Your task to perform on an android device: Empty the shopping cart on amazon.com. Add dell xps to the cart on amazon.com Image 0: 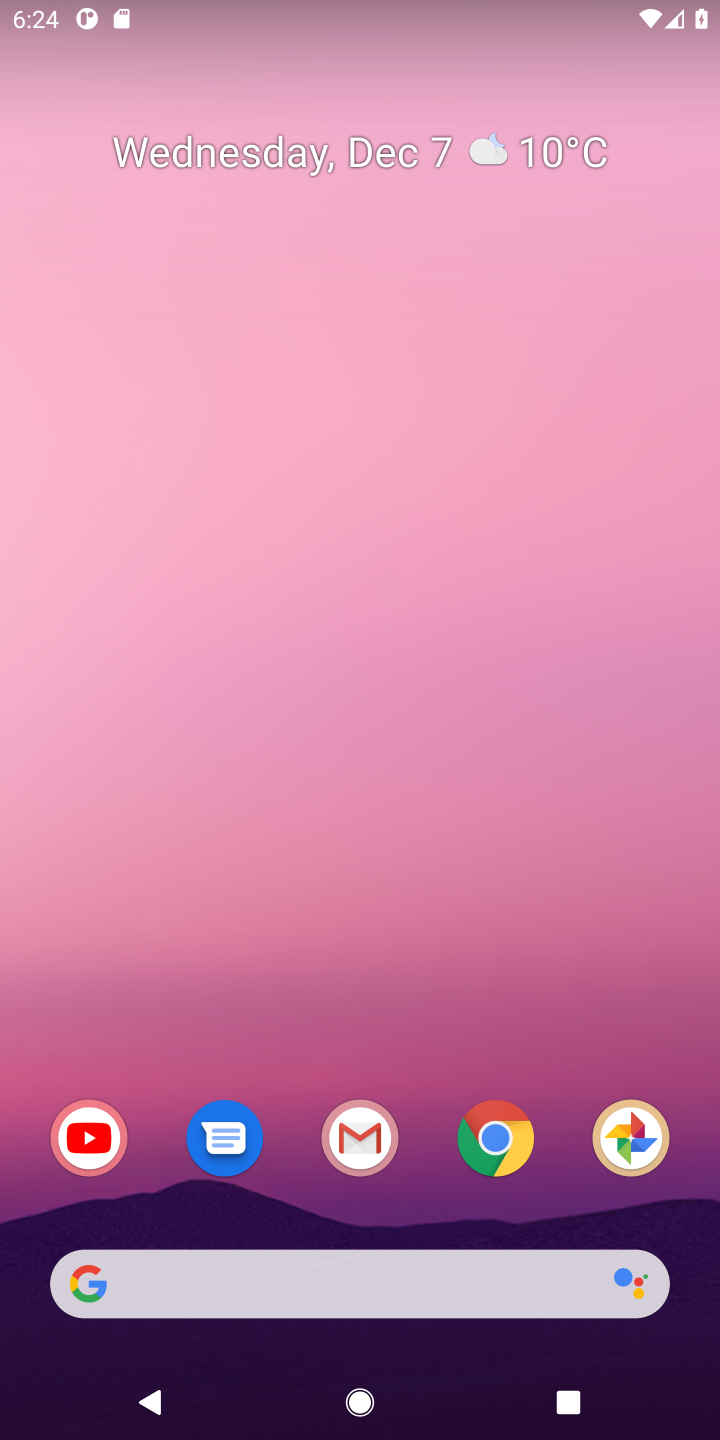
Step 0: press home button
Your task to perform on an android device: Empty the shopping cart on amazon.com. Add dell xps to the cart on amazon.com Image 1: 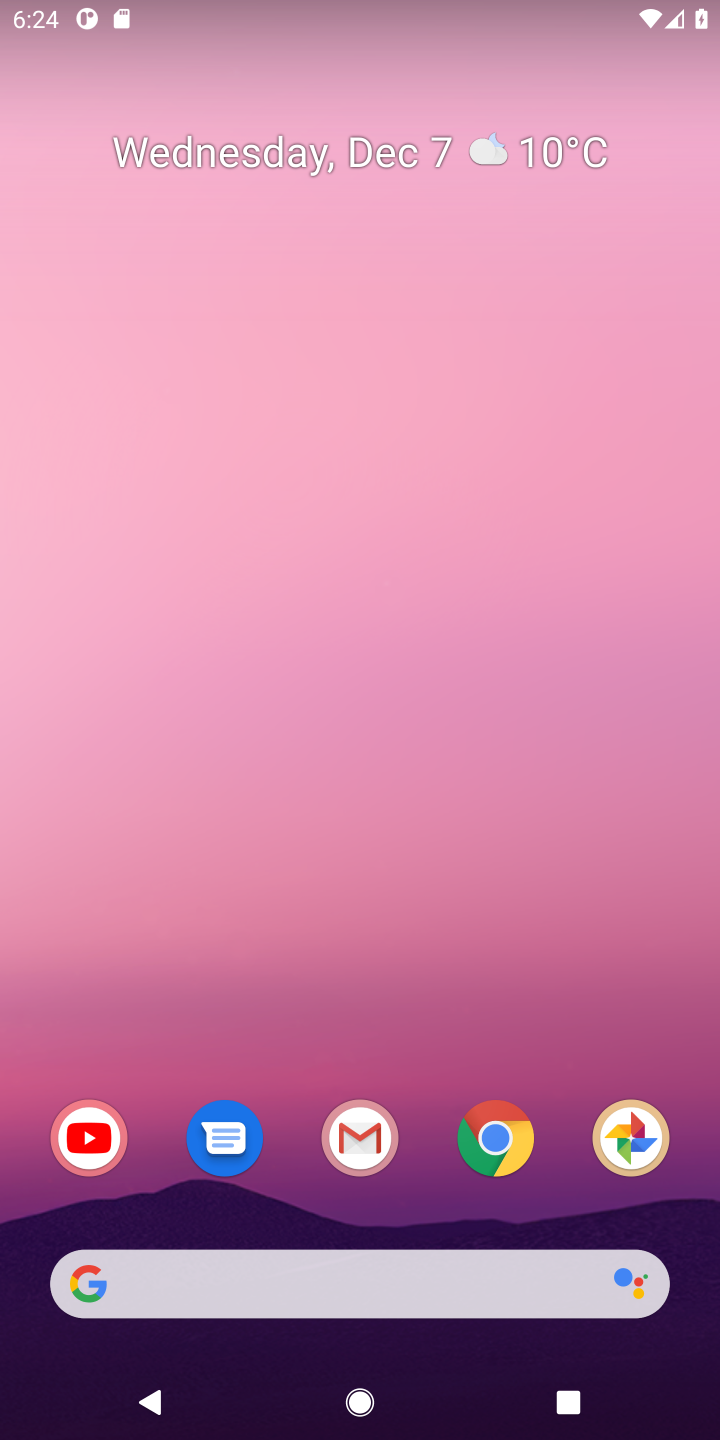
Step 1: click (139, 1292)
Your task to perform on an android device: Empty the shopping cart on amazon.com. Add dell xps to the cart on amazon.com Image 2: 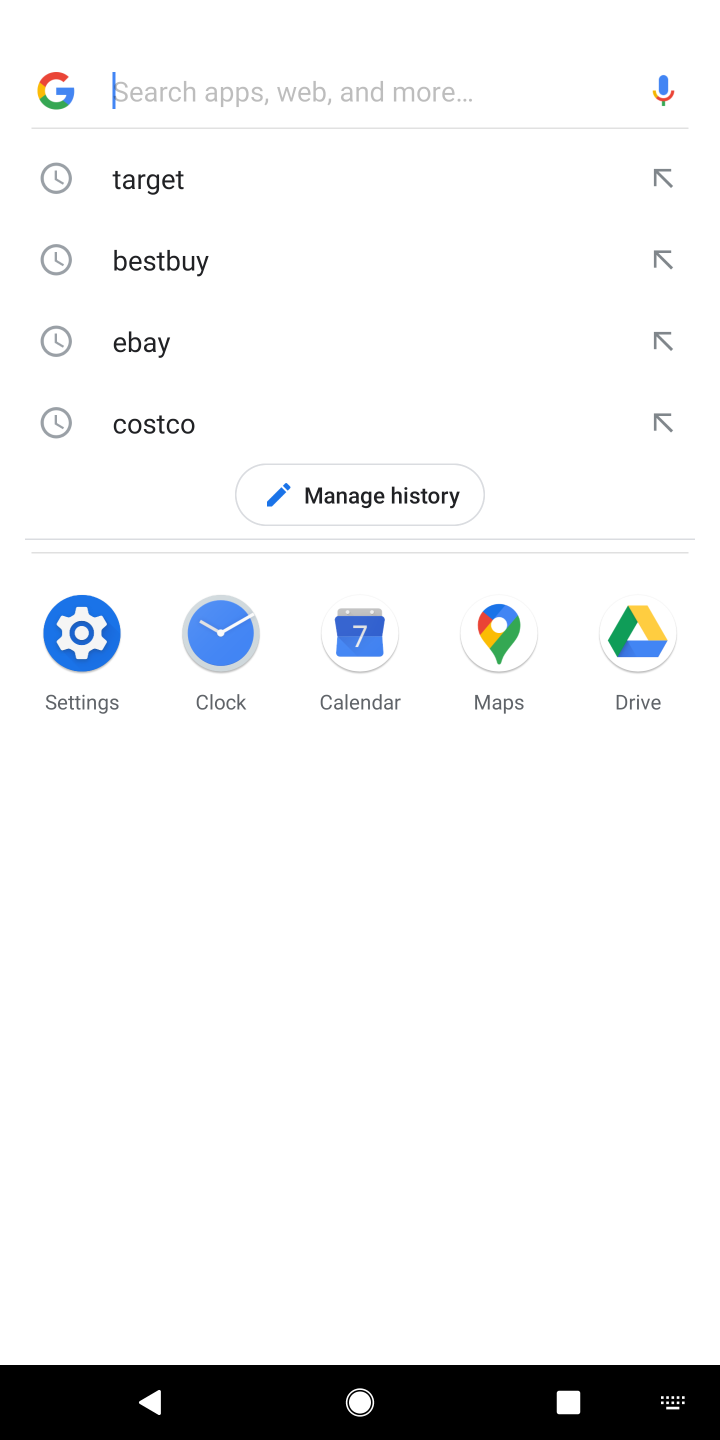
Step 2: type "amazon.com"
Your task to perform on an android device: Empty the shopping cart on amazon.com. Add dell xps to the cart on amazon.com Image 3: 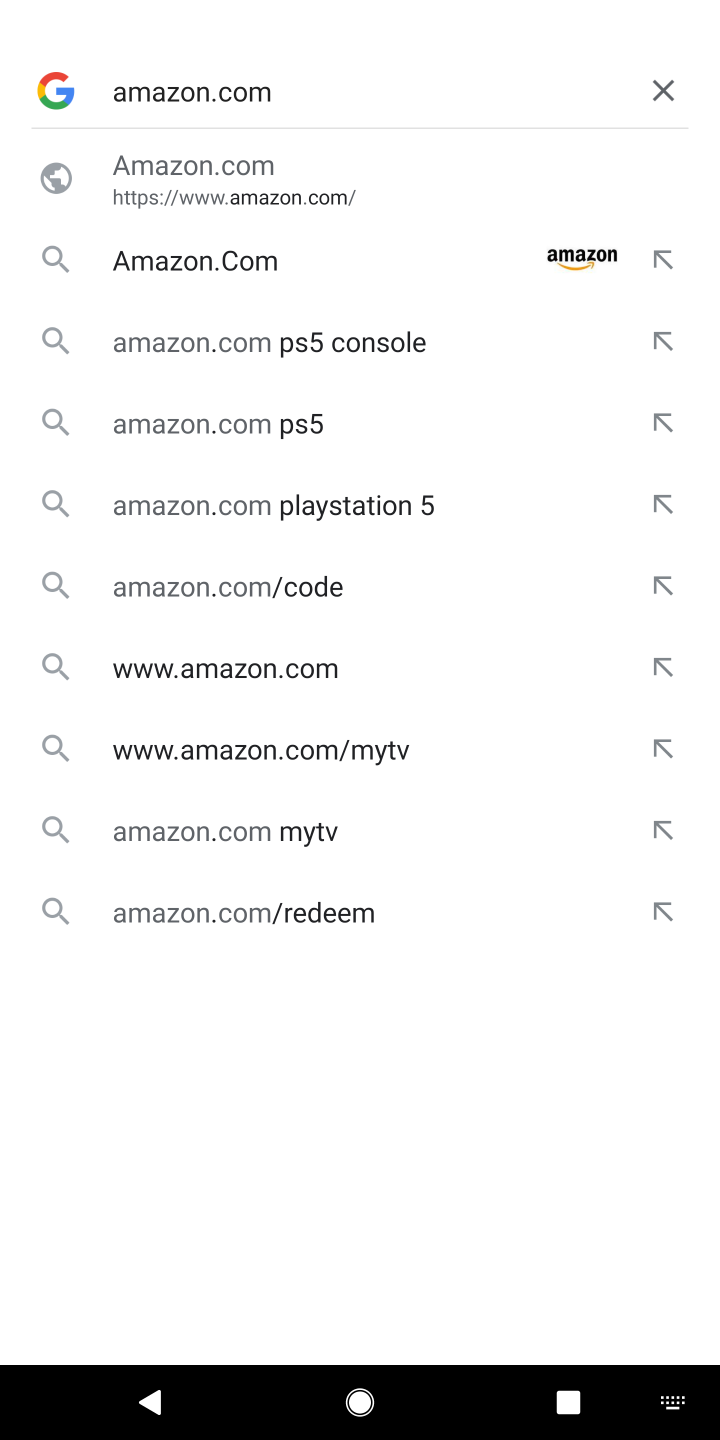
Step 3: press enter
Your task to perform on an android device: Empty the shopping cart on amazon.com. Add dell xps to the cart on amazon.com Image 4: 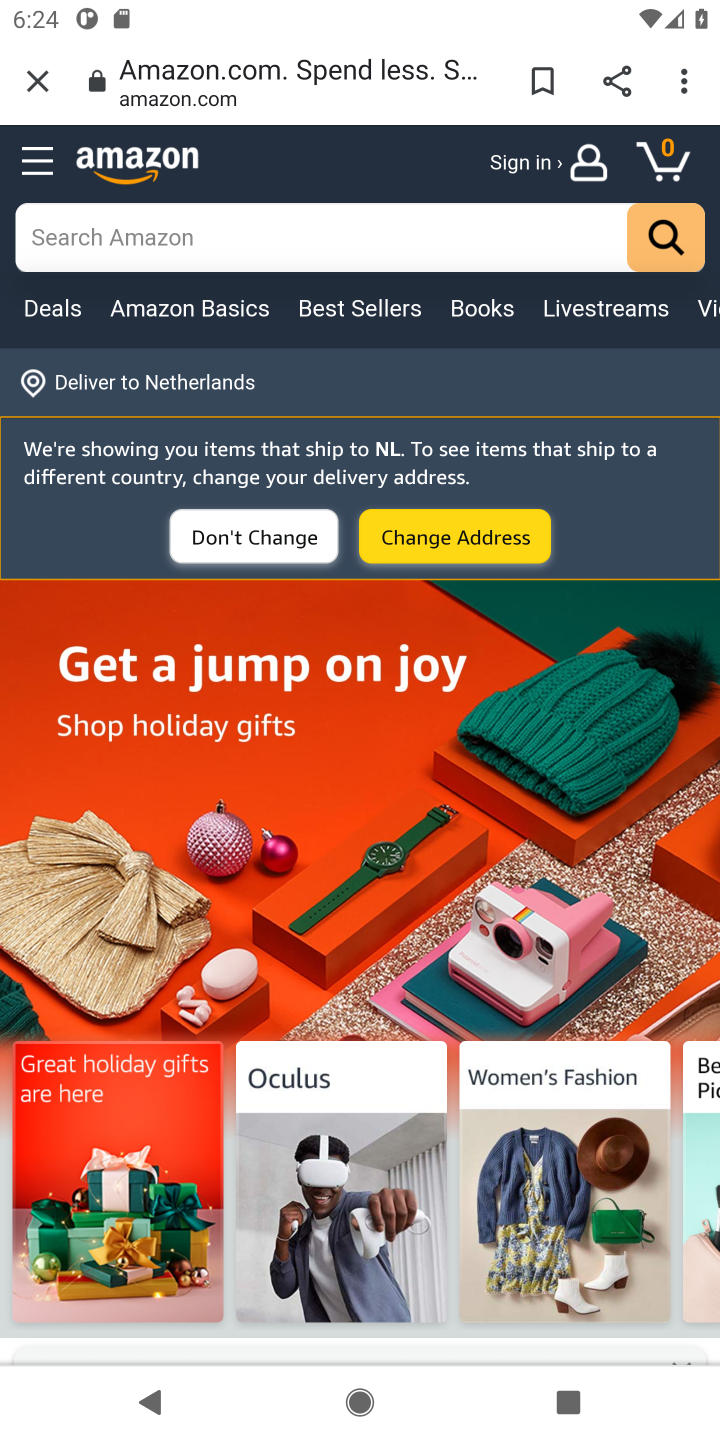
Step 4: click (665, 161)
Your task to perform on an android device: Empty the shopping cart on amazon.com. Add dell xps to the cart on amazon.com Image 5: 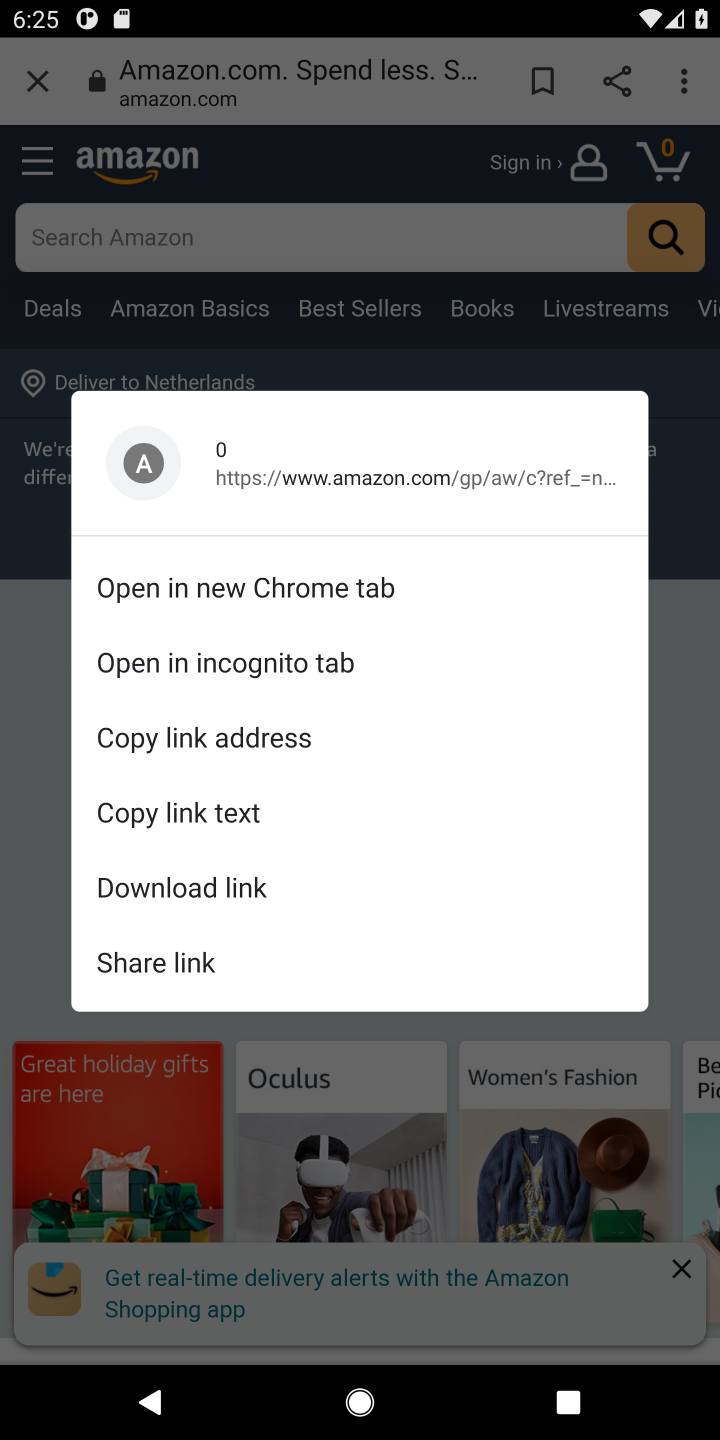
Step 5: click (642, 338)
Your task to perform on an android device: Empty the shopping cart on amazon.com. Add dell xps to the cart on amazon.com Image 6: 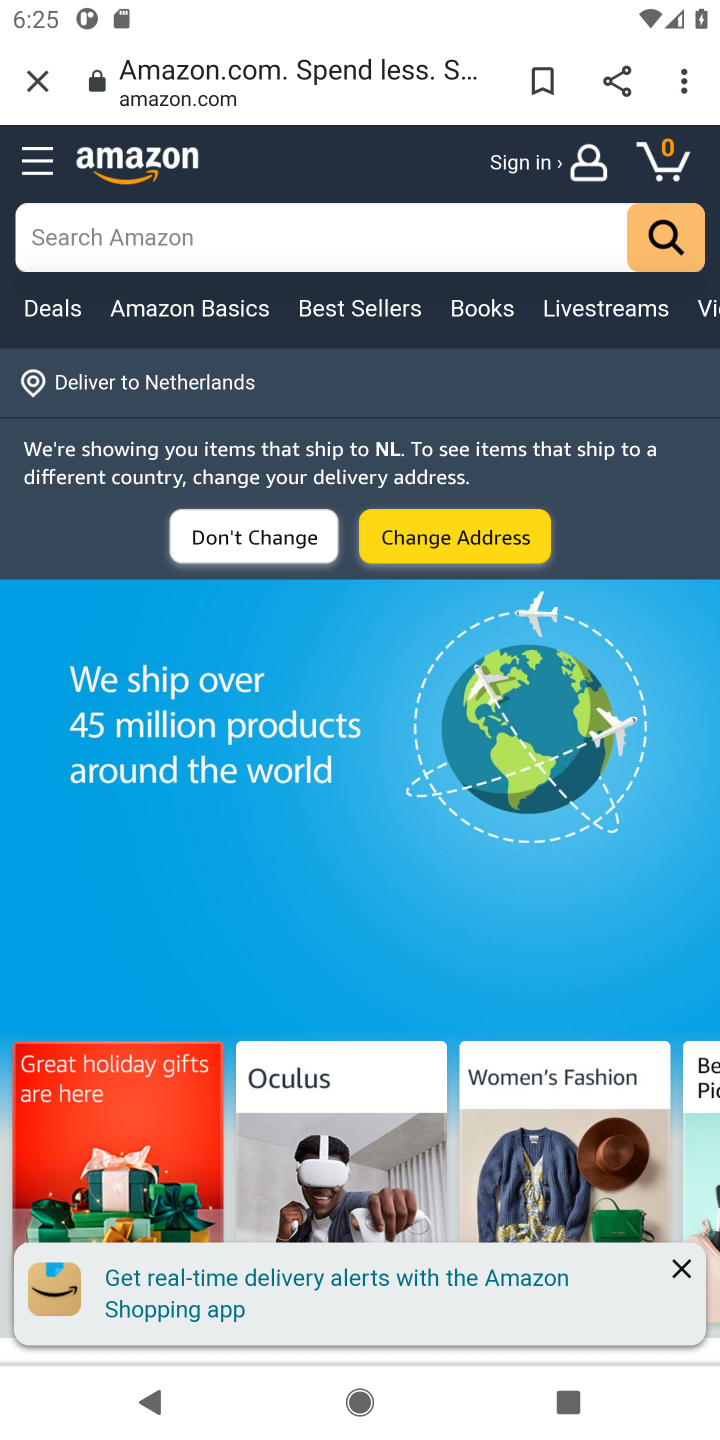
Step 6: click (672, 151)
Your task to perform on an android device: Empty the shopping cart on amazon.com. Add dell xps to the cart on amazon.com Image 7: 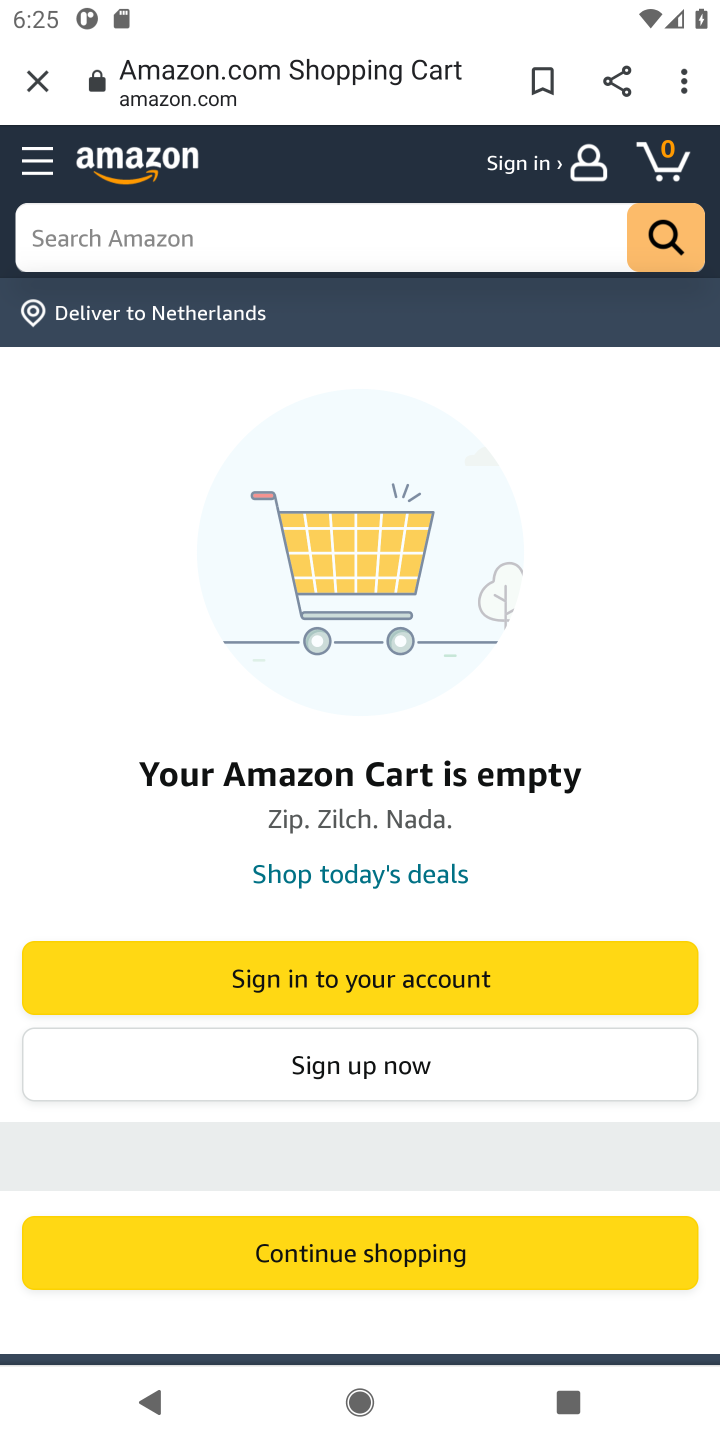
Step 7: click (363, 238)
Your task to perform on an android device: Empty the shopping cart on amazon.com. Add dell xps to the cart on amazon.com Image 8: 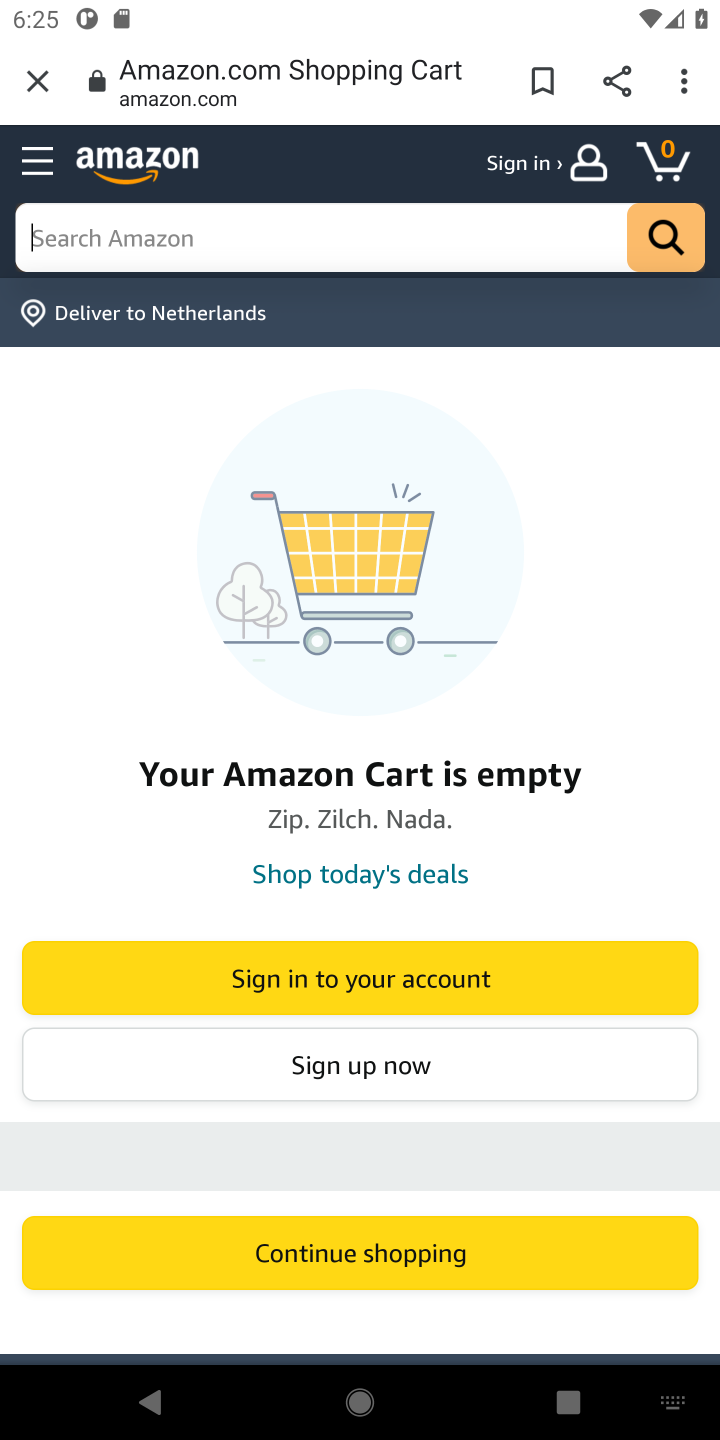
Step 8: type "dell xps "
Your task to perform on an android device: Empty the shopping cart on amazon.com. Add dell xps to the cart on amazon.com Image 9: 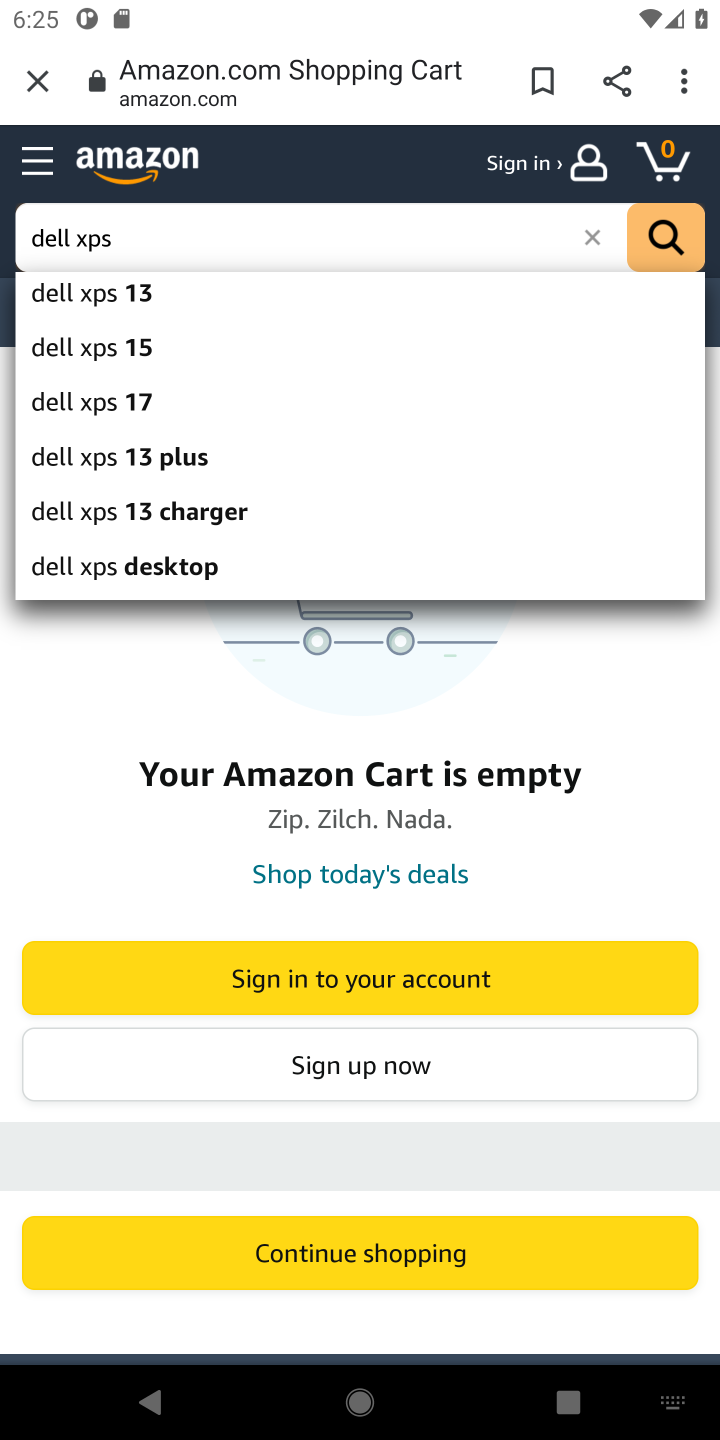
Step 9: click (667, 230)
Your task to perform on an android device: Empty the shopping cart on amazon.com. Add dell xps to the cart on amazon.com Image 10: 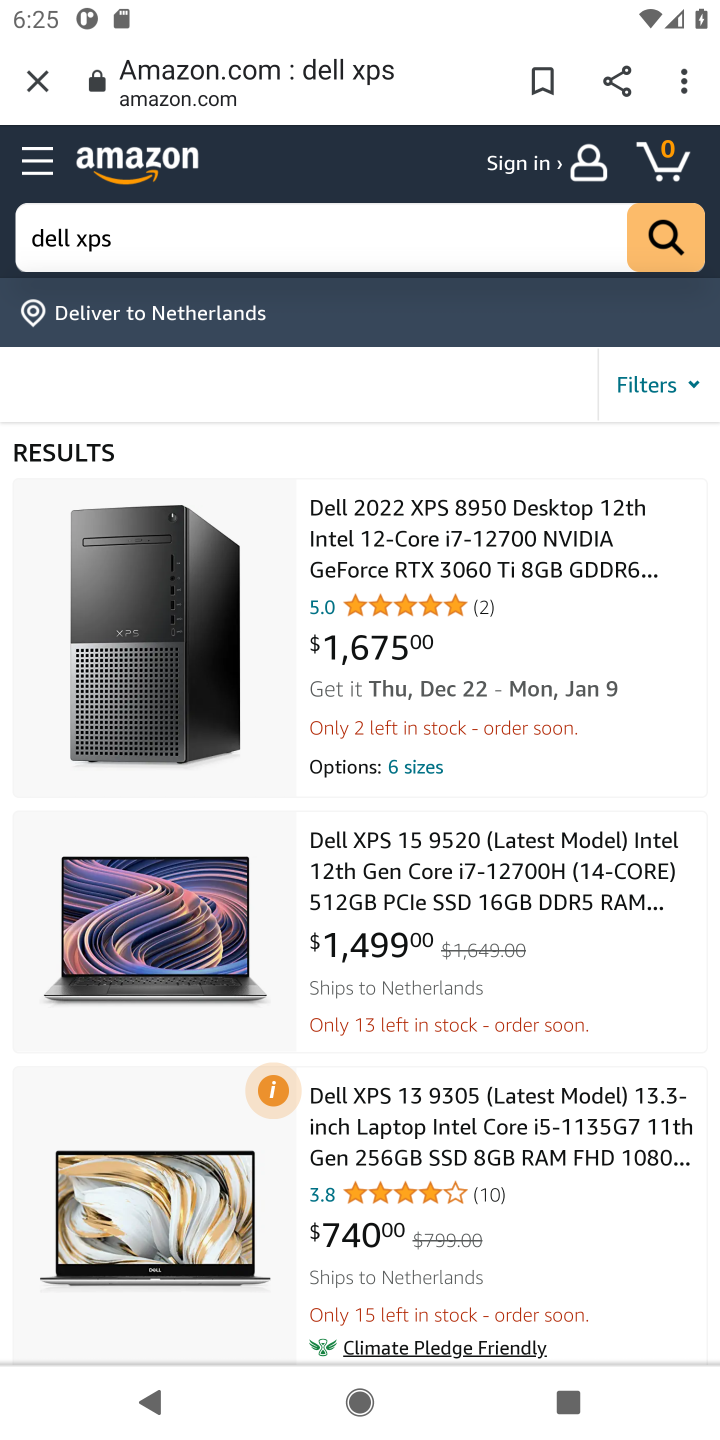
Step 10: click (485, 902)
Your task to perform on an android device: Empty the shopping cart on amazon.com. Add dell xps to the cart on amazon.com Image 11: 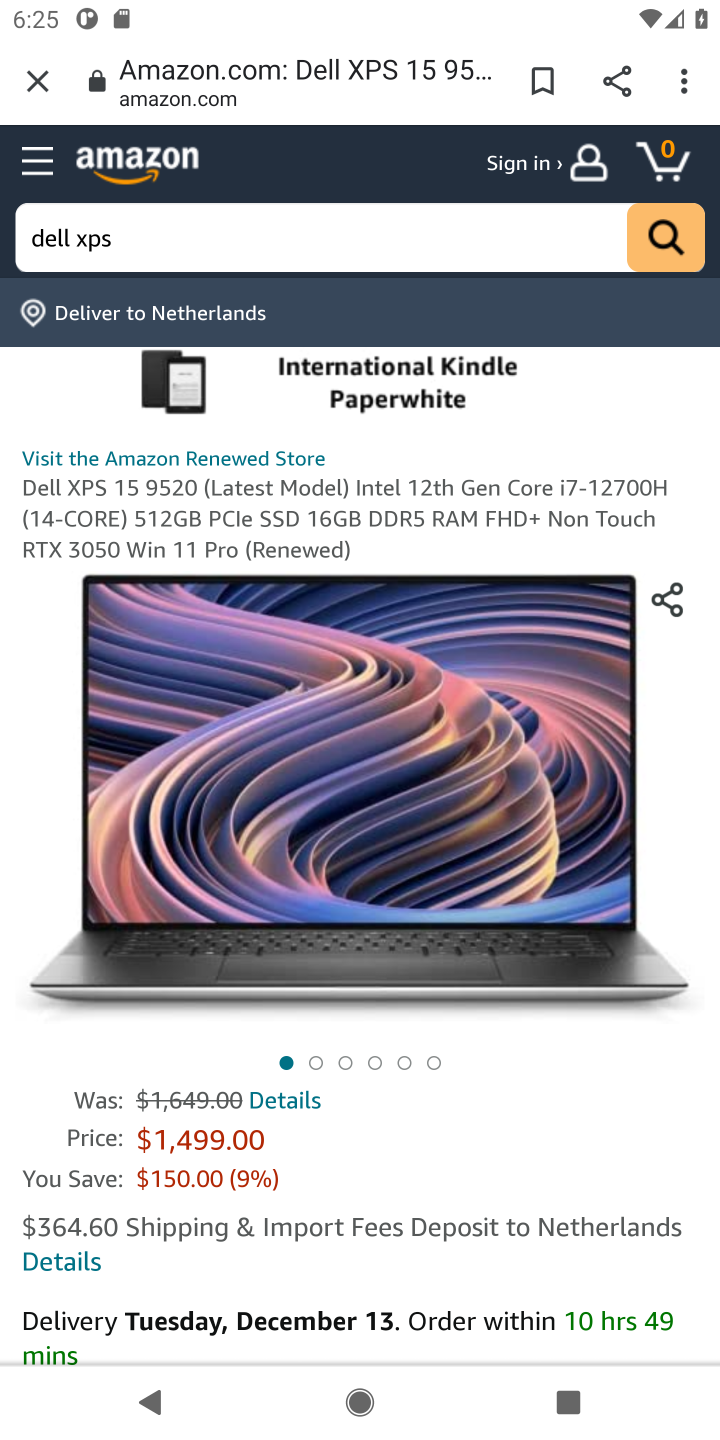
Step 11: drag from (398, 1113) to (382, 507)
Your task to perform on an android device: Empty the shopping cart on amazon.com. Add dell xps to the cart on amazon.com Image 12: 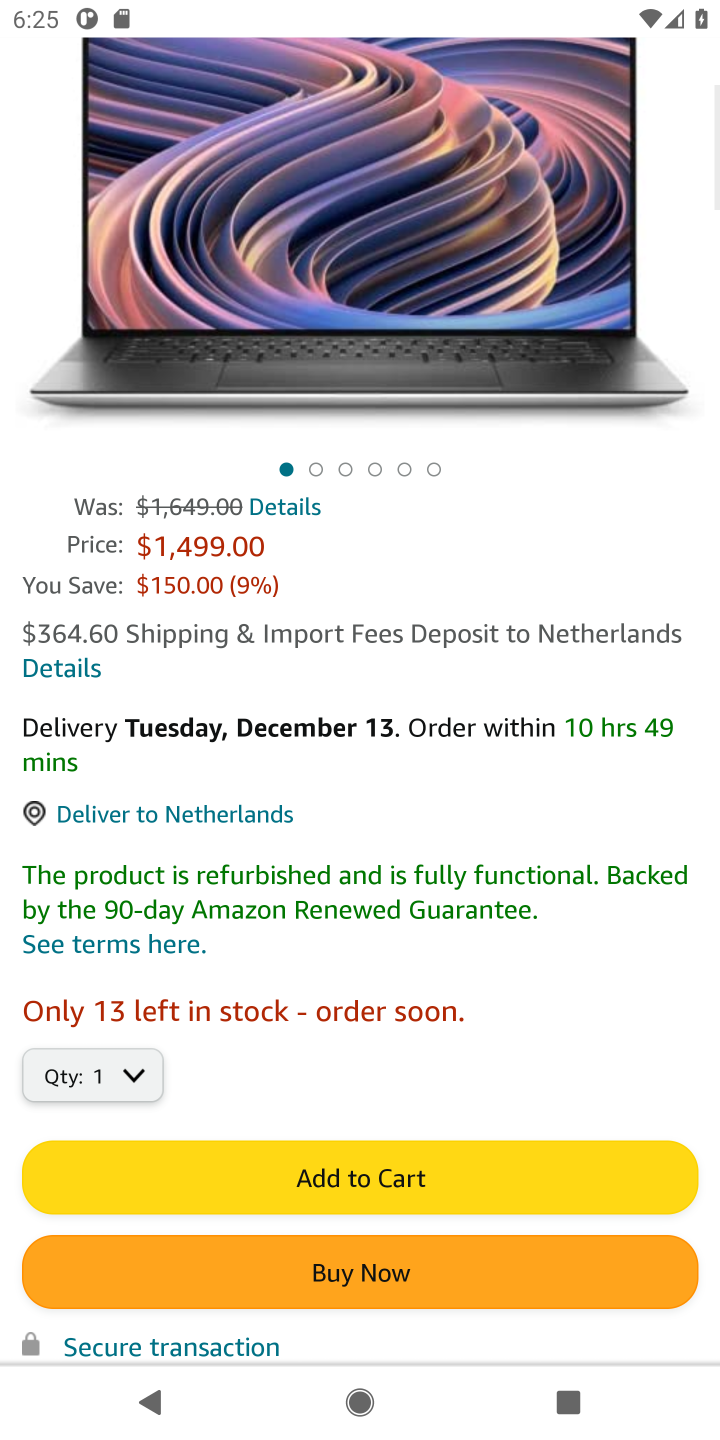
Step 12: drag from (287, 1068) to (358, 458)
Your task to perform on an android device: Empty the shopping cart on amazon.com. Add dell xps to the cart on amazon.com Image 13: 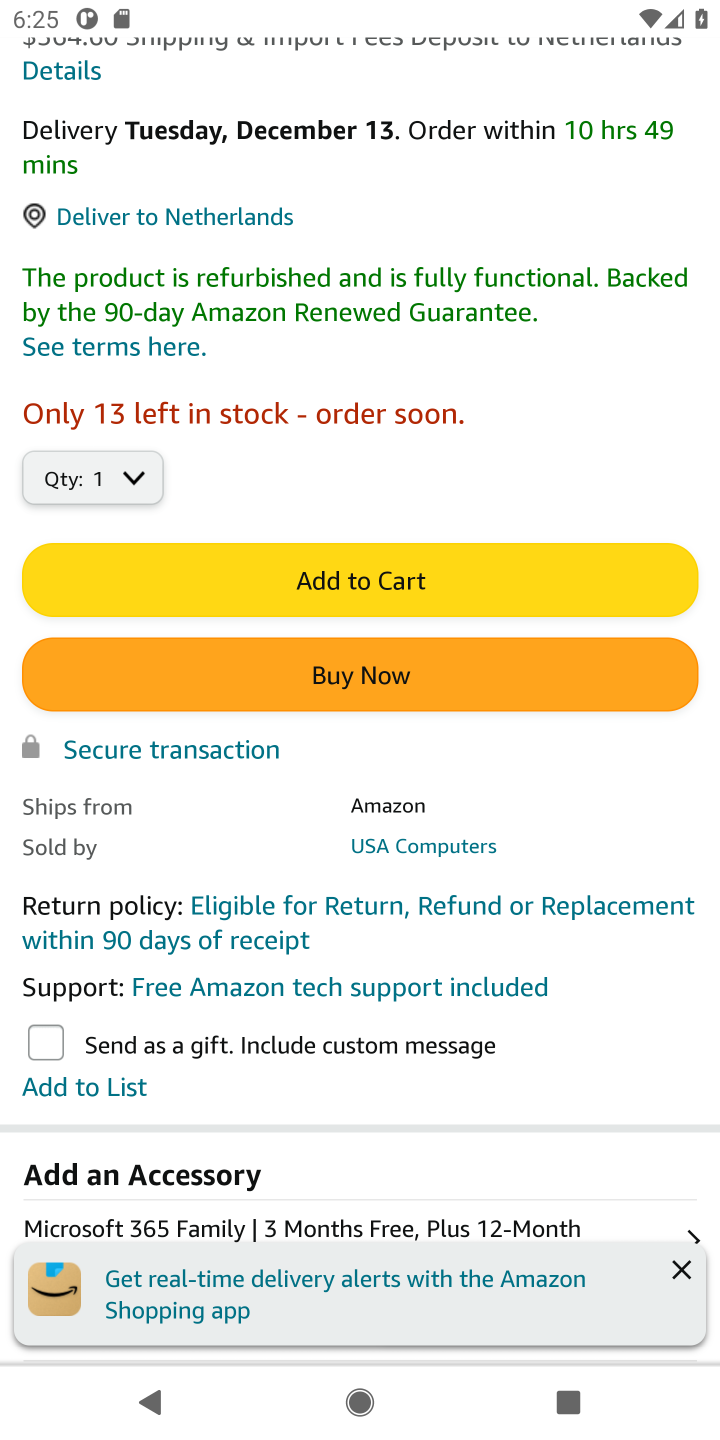
Step 13: click (408, 583)
Your task to perform on an android device: Empty the shopping cart on amazon.com. Add dell xps to the cart on amazon.com Image 14: 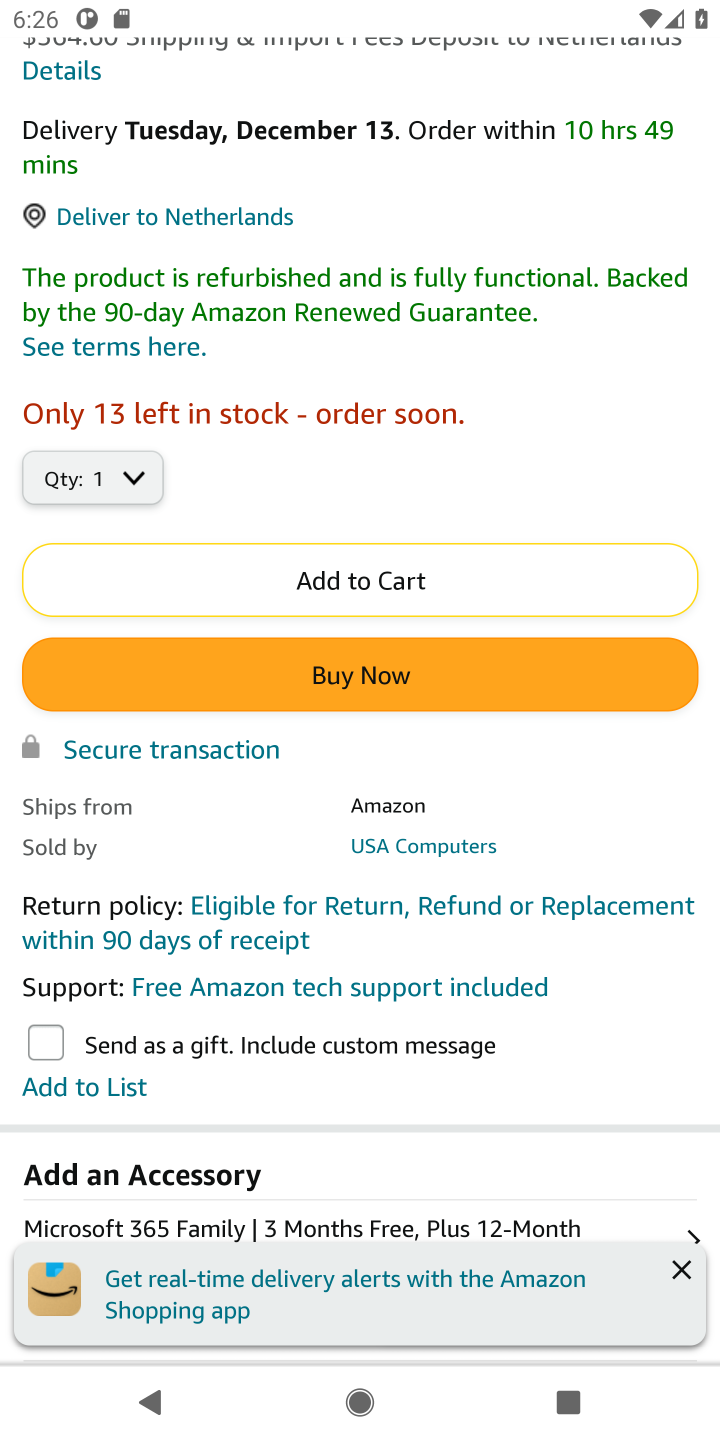
Step 14: drag from (555, 327) to (495, 1076)
Your task to perform on an android device: Empty the shopping cart on amazon.com. Add dell xps to the cart on amazon.com Image 15: 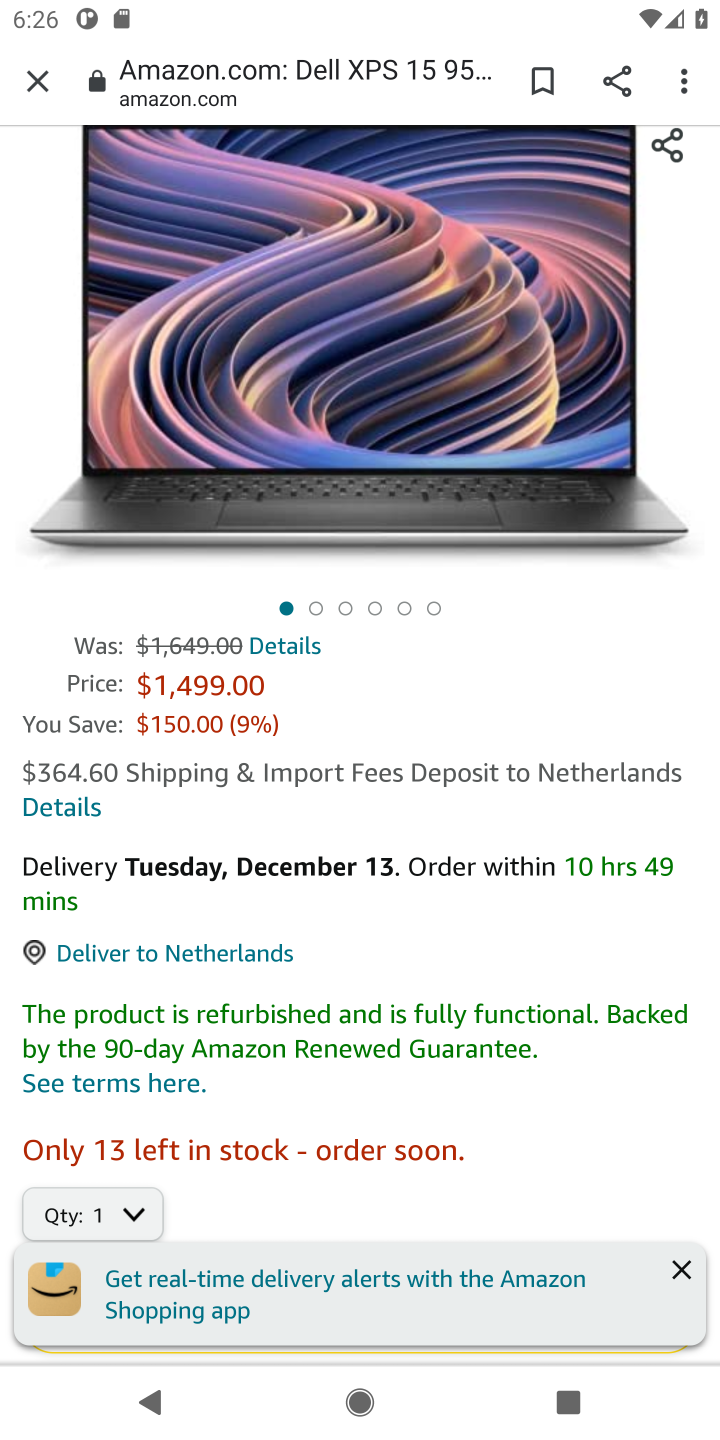
Step 15: drag from (563, 466) to (523, 979)
Your task to perform on an android device: Empty the shopping cart on amazon.com. Add dell xps to the cart on amazon.com Image 16: 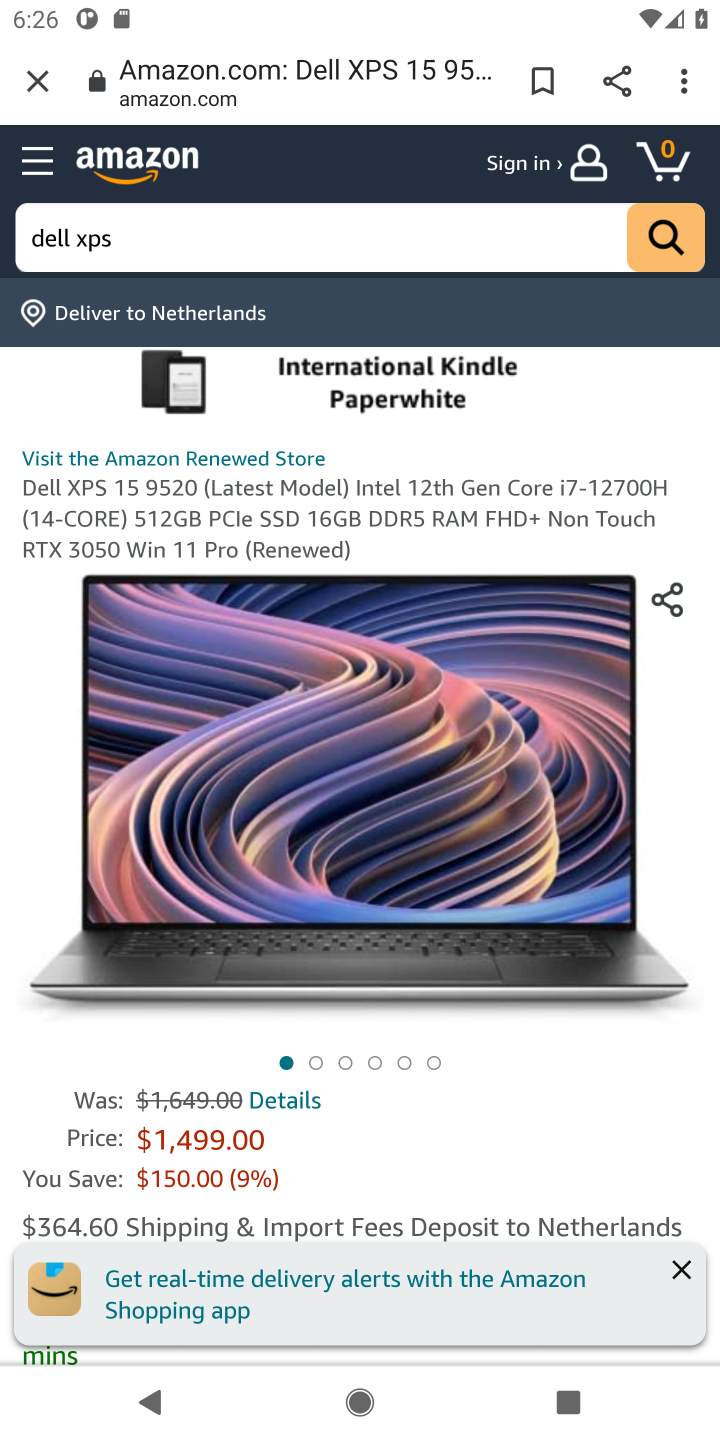
Step 16: drag from (507, 999) to (521, 411)
Your task to perform on an android device: Empty the shopping cart on amazon.com. Add dell xps to the cart on amazon.com Image 17: 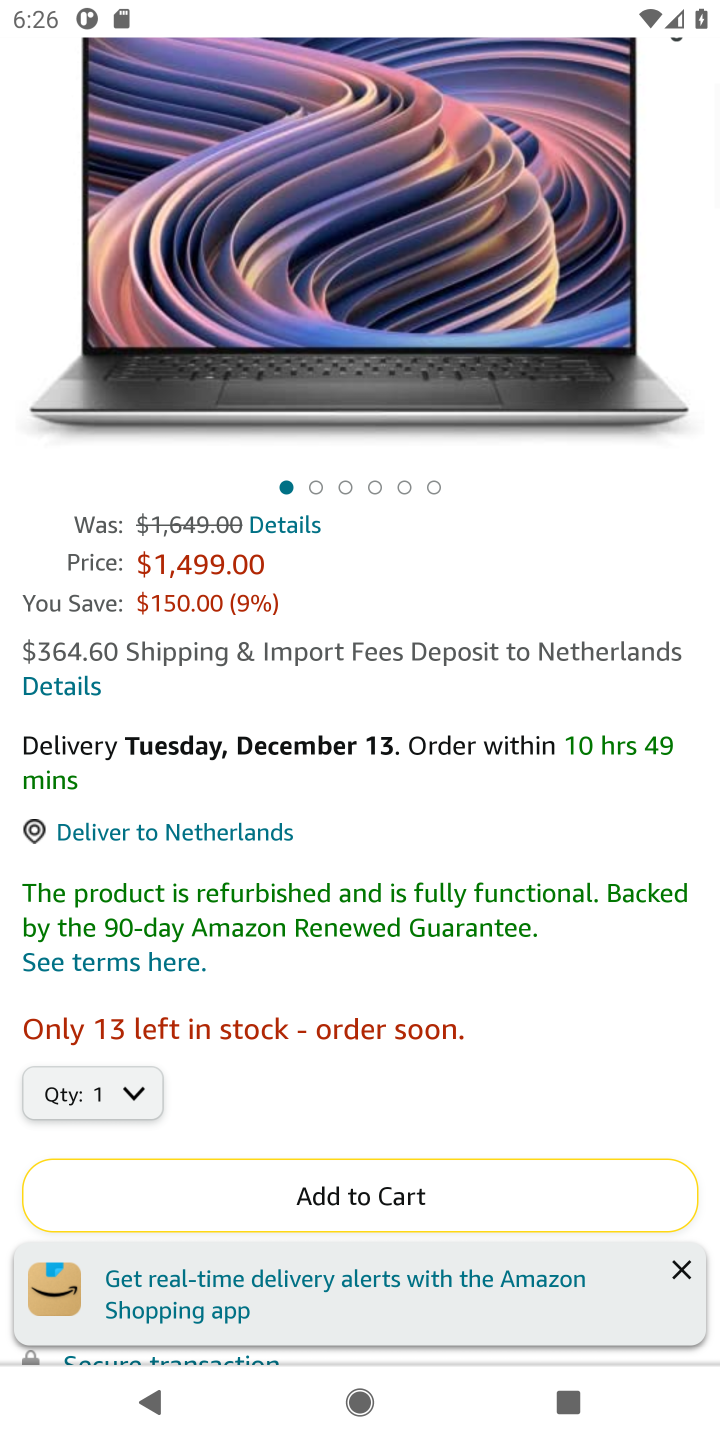
Step 17: drag from (437, 1065) to (428, 490)
Your task to perform on an android device: Empty the shopping cart on amazon.com. Add dell xps to the cart on amazon.com Image 18: 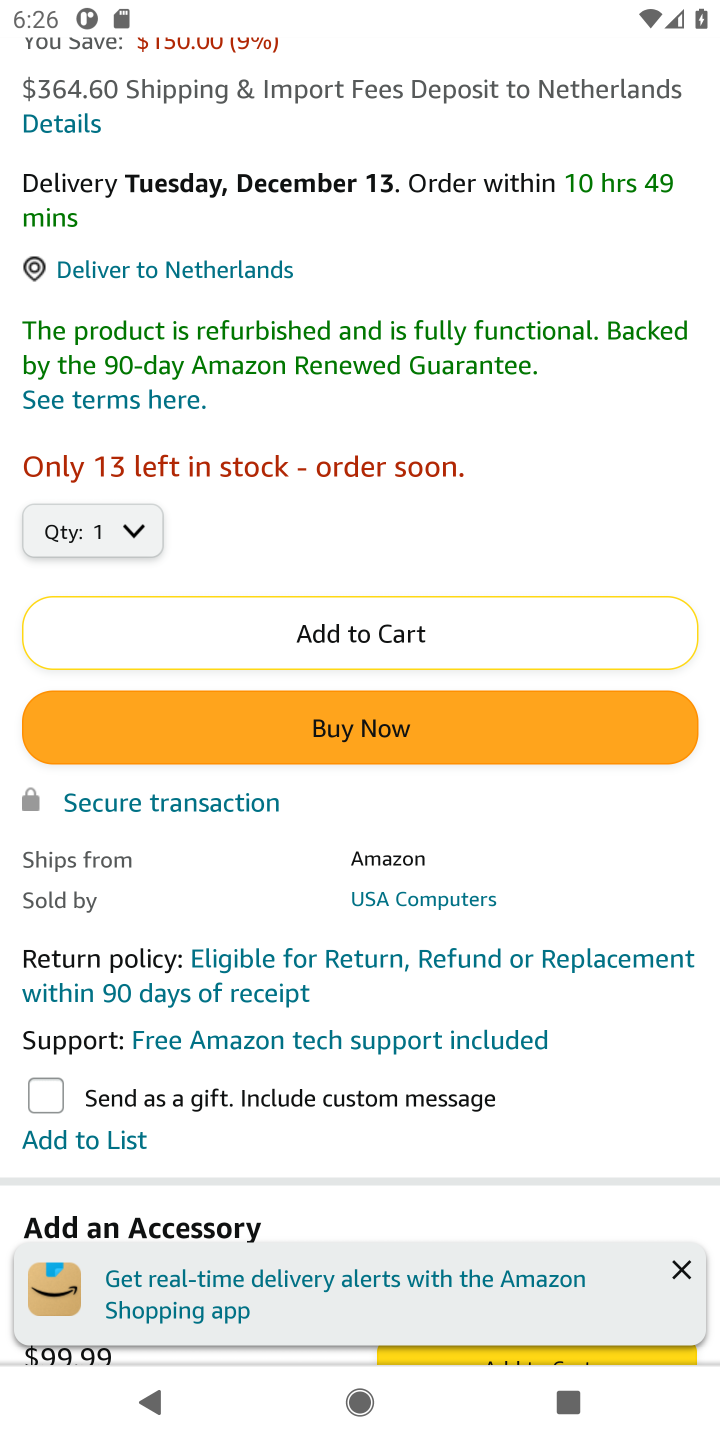
Step 18: click (352, 637)
Your task to perform on an android device: Empty the shopping cart on amazon.com. Add dell xps to the cart on amazon.com Image 19: 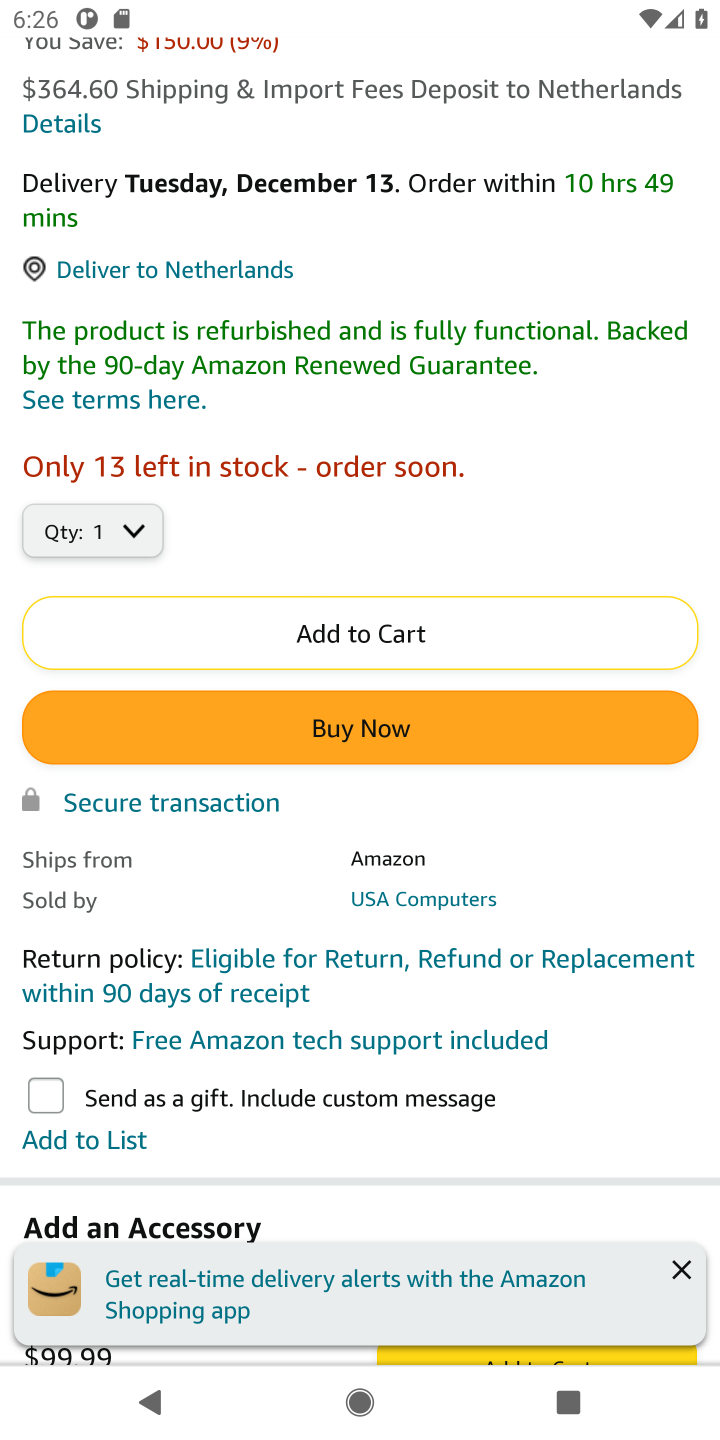
Step 19: click (685, 1256)
Your task to perform on an android device: Empty the shopping cart on amazon.com. Add dell xps to the cart on amazon.com Image 20: 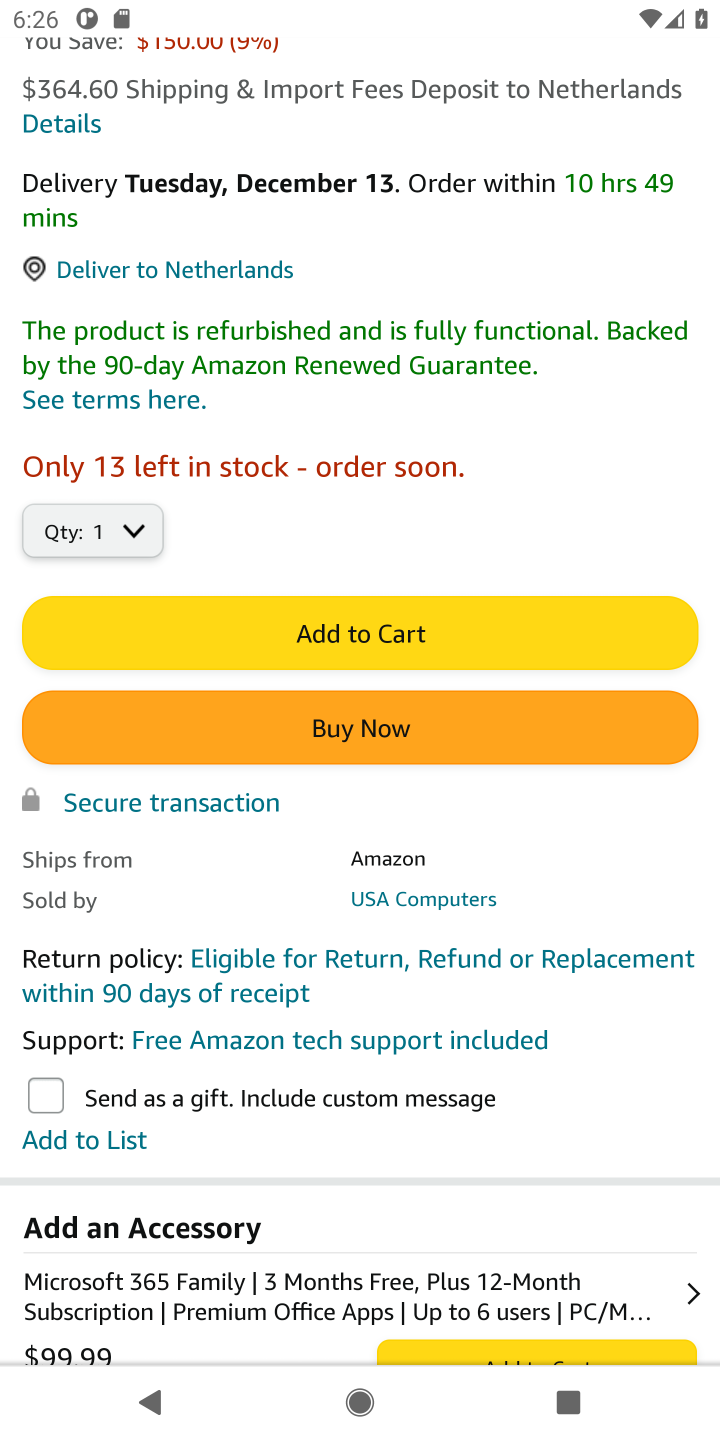
Step 20: click (342, 624)
Your task to perform on an android device: Empty the shopping cart on amazon.com. Add dell xps to the cart on amazon.com Image 21: 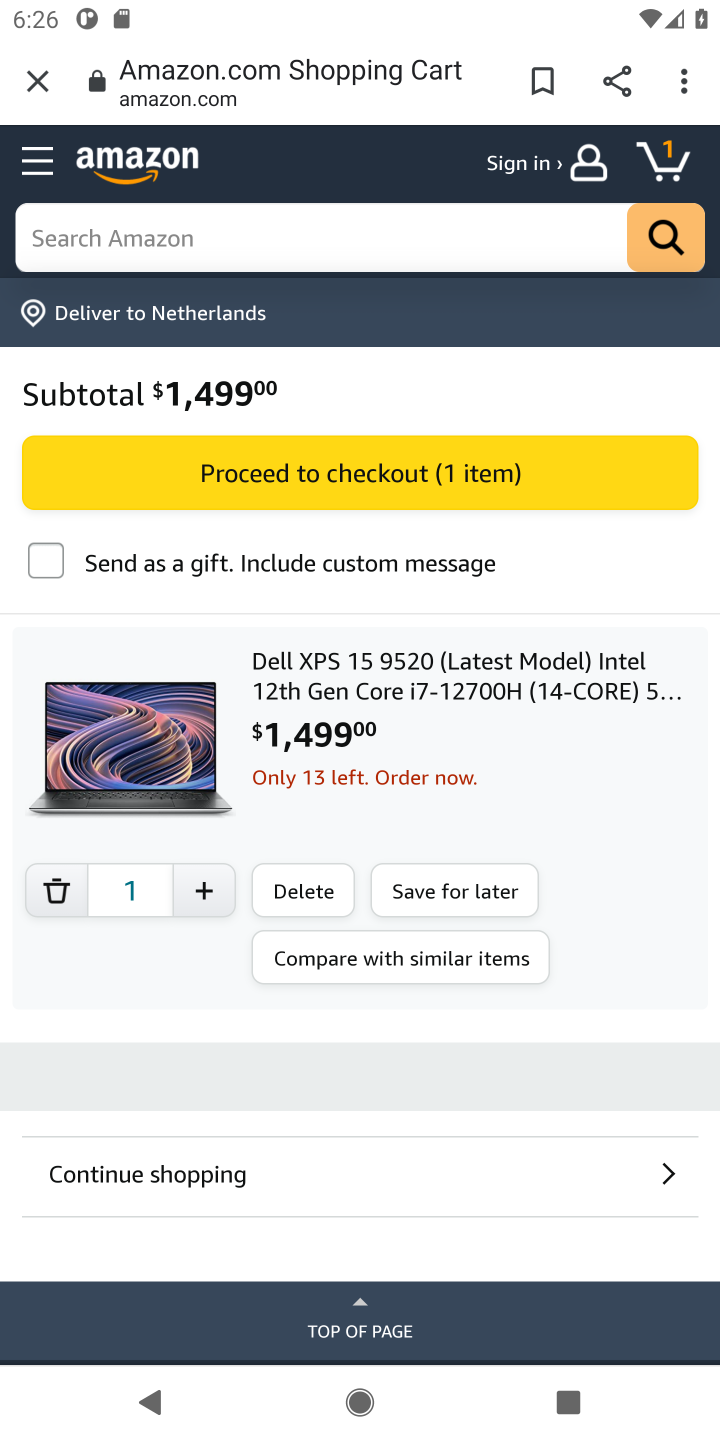
Step 21: task complete